Your task to perform on an android device: Open Amazon Image 0: 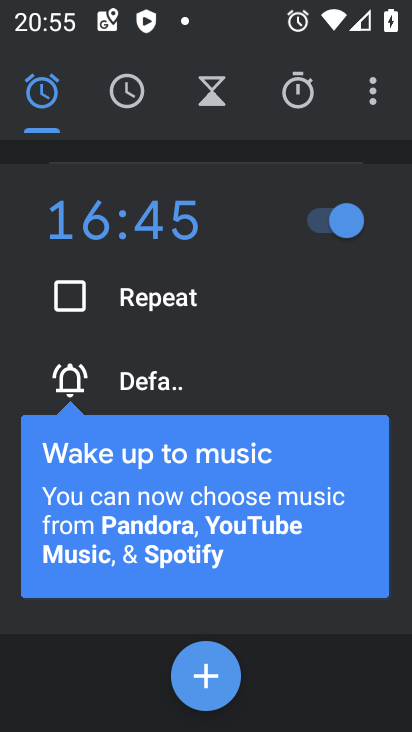
Step 0: press home button
Your task to perform on an android device: Open Amazon Image 1: 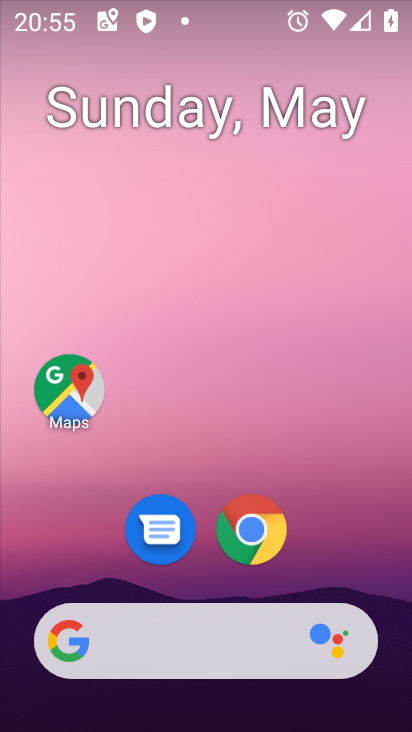
Step 1: click (266, 534)
Your task to perform on an android device: Open Amazon Image 2: 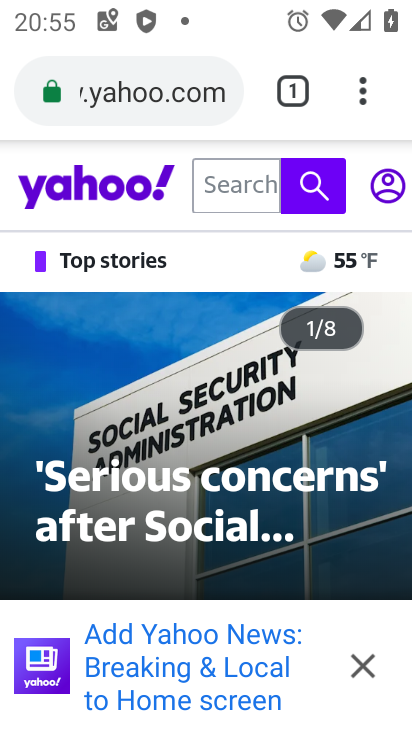
Step 2: click (103, 99)
Your task to perform on an android device: Open Amazon Image 3: 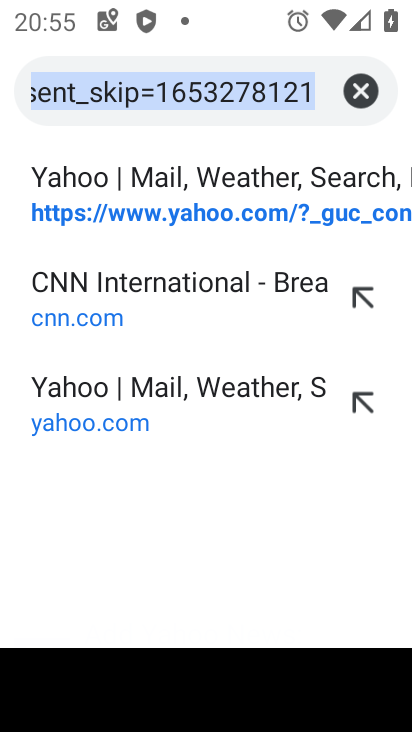
Step 3: click (360, 84)
Your task to perform on an android device: Open Amazon Image 4: 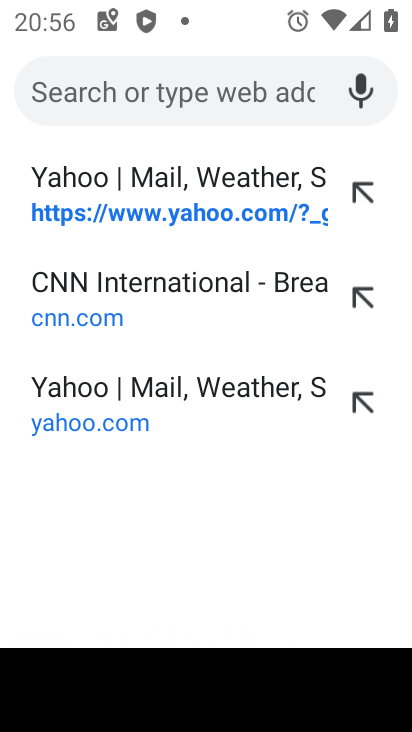
Step 4: type "amazon"
Your task to perform on an android device: Open Amazon Image 5: 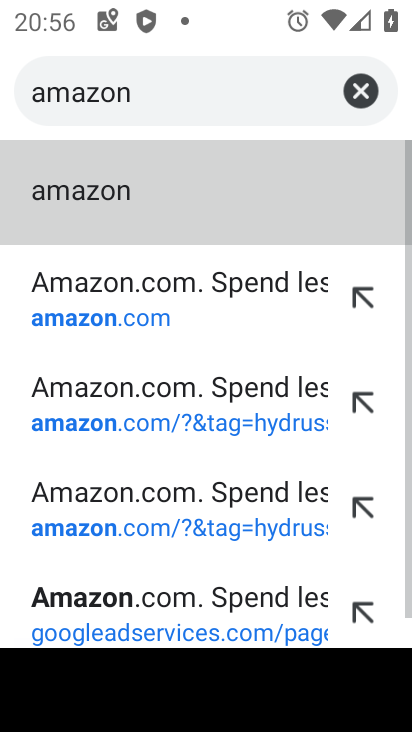
Step 5: click (59, 191)
Your task to perform on an android device: Open Amazon Image 6: 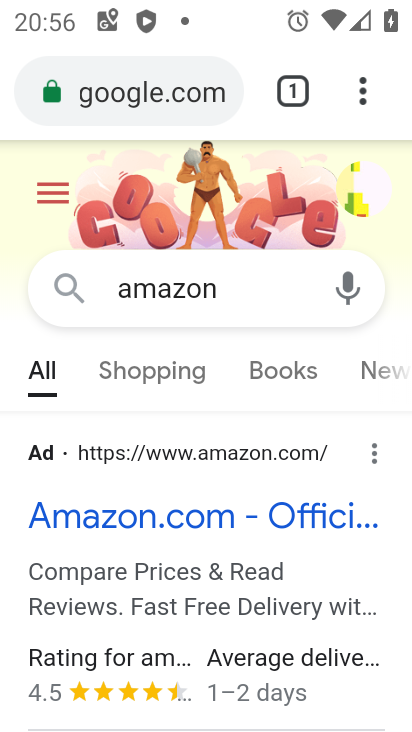
Step 6: click (102, 516)
Your task to perform on an android device: Open Amazon Image 7: 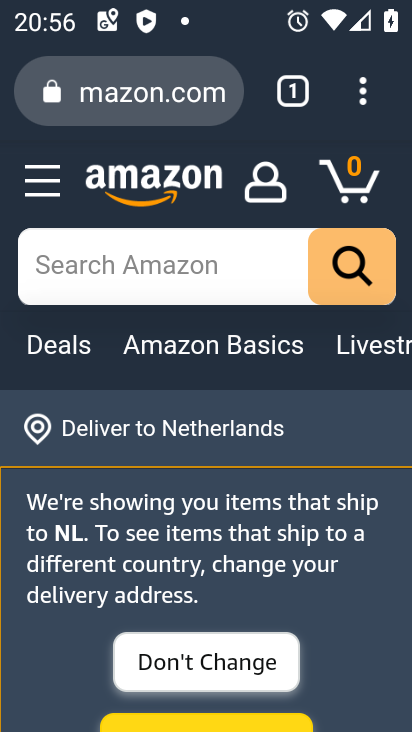
Step 7: task complete